Your task to perform on an android device: Go to location settings Image 0: 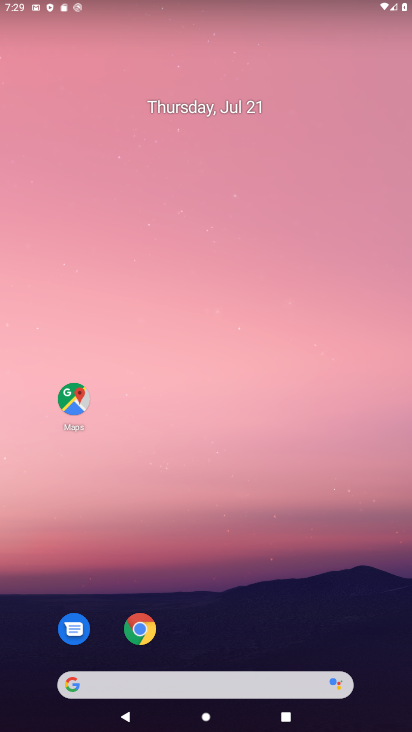
Step 0: drag from (12, 707) to (239, 147)
Your task to perform on an android device: Go to location settings Image 1: 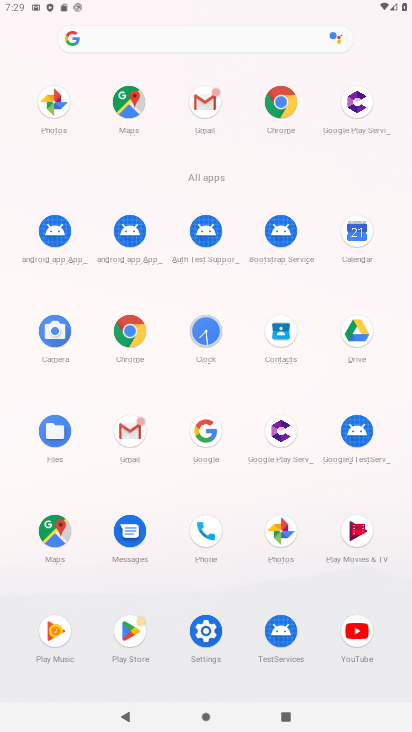
Step 1: click (198, 641)
Your task to perform on an android device: Go to location settings Image 2: 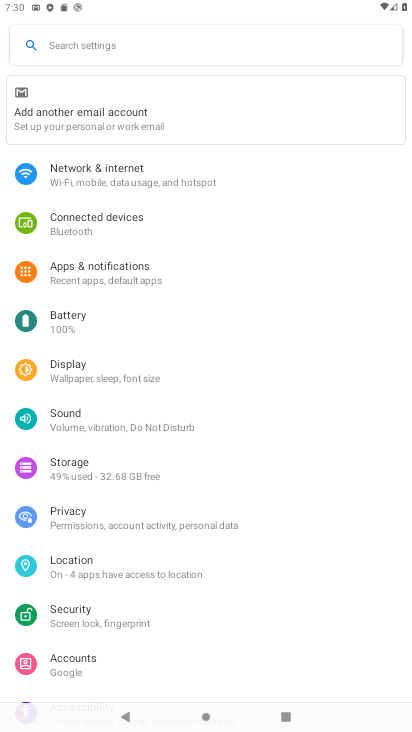
Step 2: click (86, 570)
Your task to perform on an android device: Go to location settings Image 3: 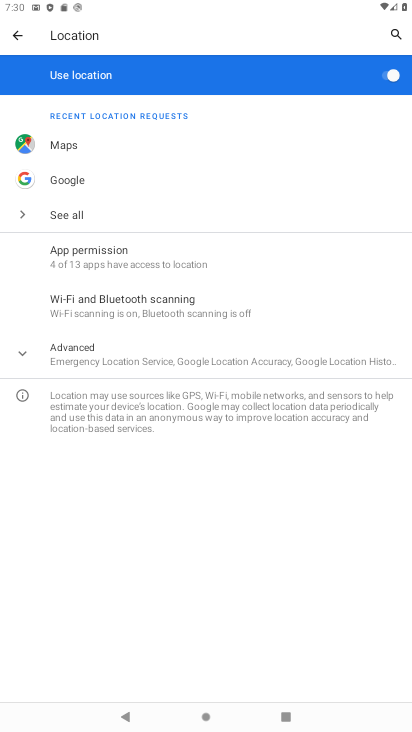
Step 3: task complete